Your task to perform on an android device: Open notification settings Image 0: 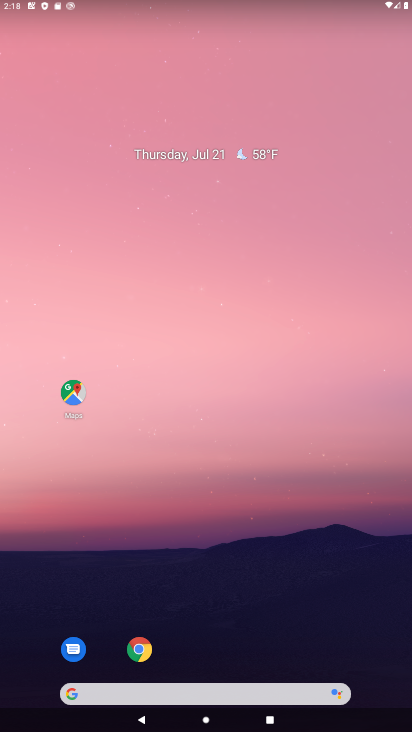
Step 0: drag from (243, 637) to (232, 367)
Your task to perform on an android device: Open notification settings Image 1: 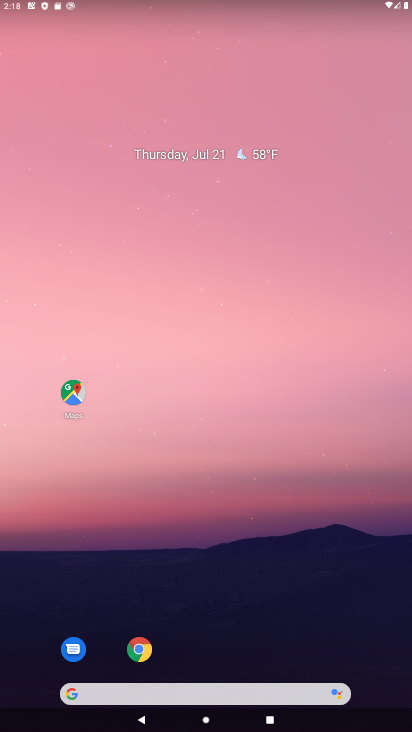
Step 1: drag from (245, 645) to (268, 291)
Your task to perform on an android device: Open notification settings Image 2: 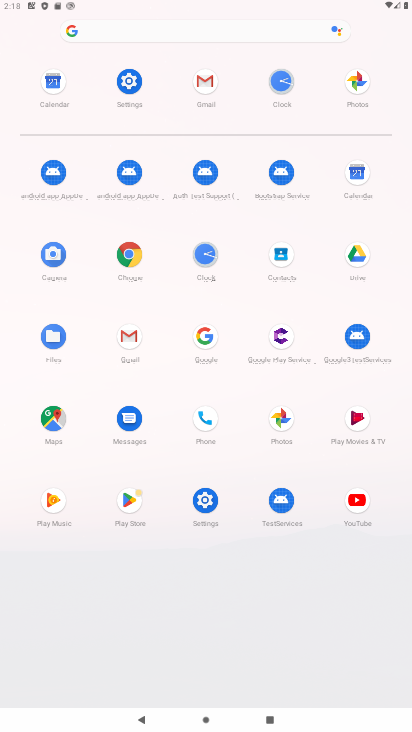
Step 2: click (207, 505)
Your task to perform on an android device: Open notification settings Image 3: 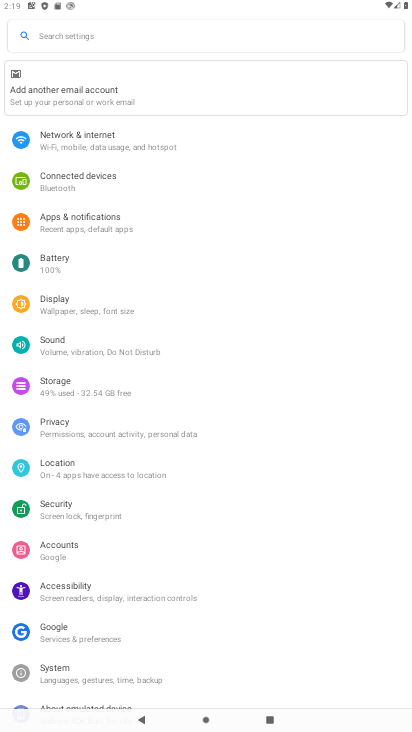
Step 3: click (103, 235)
Your task to perform on an android device: Open notification settings Image 4: 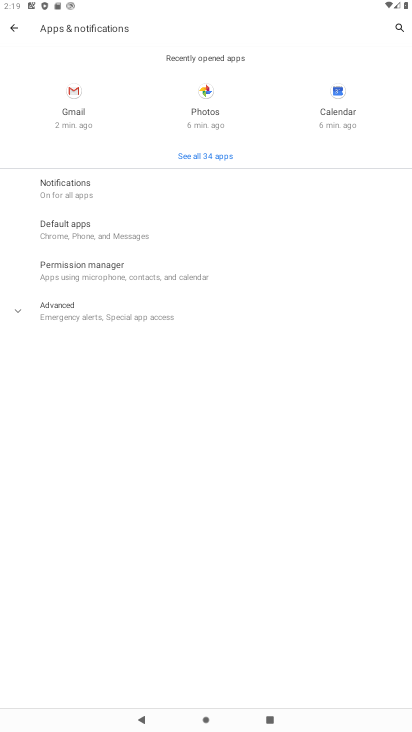
Step 4: task complete